Your task to perform on an android device: uninstall "Etsy: Buy & Sell Unique Items" Image 0: 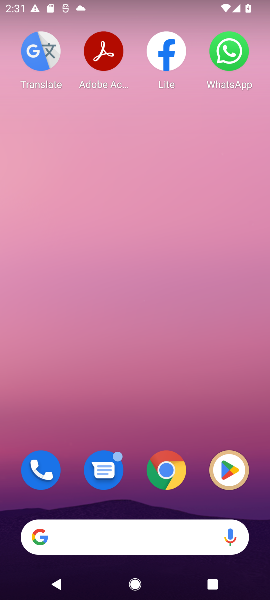
Step 0: drag from (94, 493) to (125, 120)
Your task to perform on an android device: uninstall "Etsy: Buy & Sell Unique Items" Image 1: 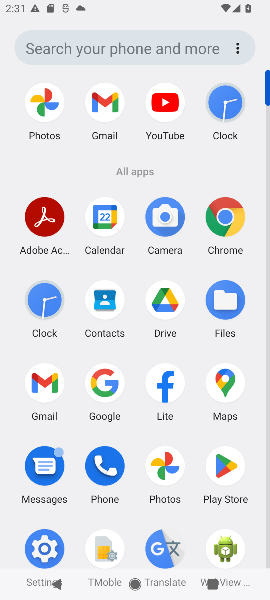
Step 1: click (224, 461)
Your task to perform on an android device: uninstall "Etsy: Buy & Sell Unique Items" Image 2: 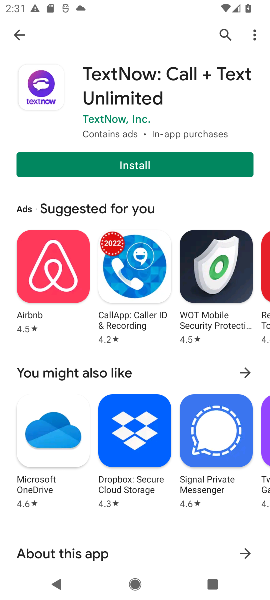
Step 2: click (20, 34)
Your task to perform on an android device: uninstall "Etsy: Buy & Sell Unique Items" Image 3: 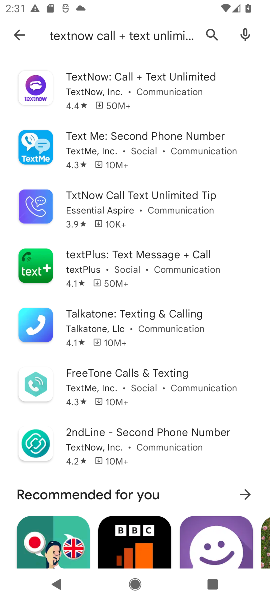
Step 3: click (23, 35)
Your task to perform on an android device: uninstall "Etsy: Buy & Sell Unique Items" Image 4: 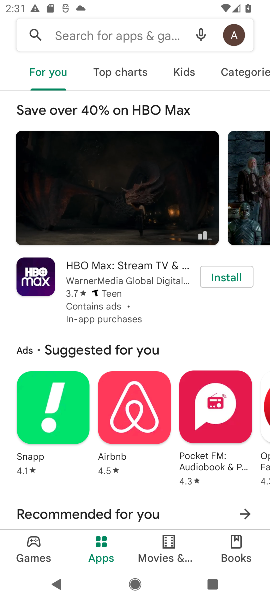
Step 4: click (69, 28)
Your task to perform on an android device: uninstall "Etsy: Buy & Sell Unique Items" Image 5: 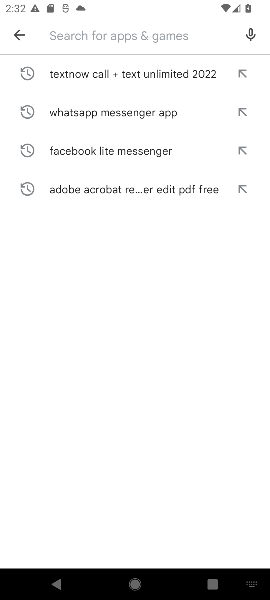
Step 5: type "Etsy: Buy & Sell Unique Items "
Your task to perform on an android device: uninstall "Etsy: Buy & Sell Unique Items" Image 6: 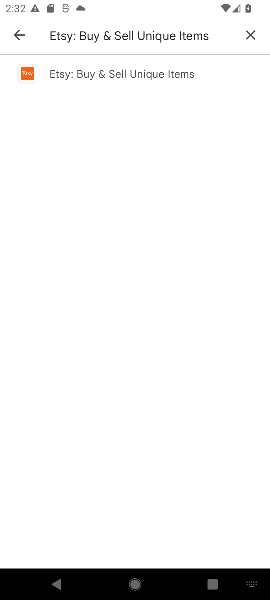
Step 6: click (98, 59)
Your task to perform on an android device: uninstall "Etsy: Buy & Sell Unique Items" Image 7: 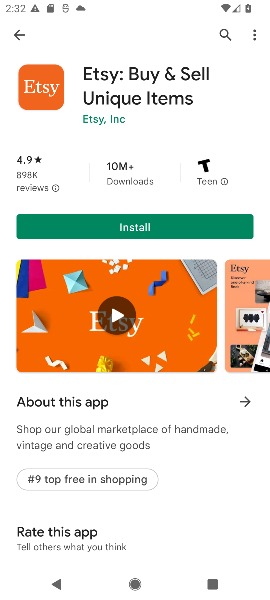
Step 7: task complete